Your task to perform on an android device: Do I have any events today? Image 0: 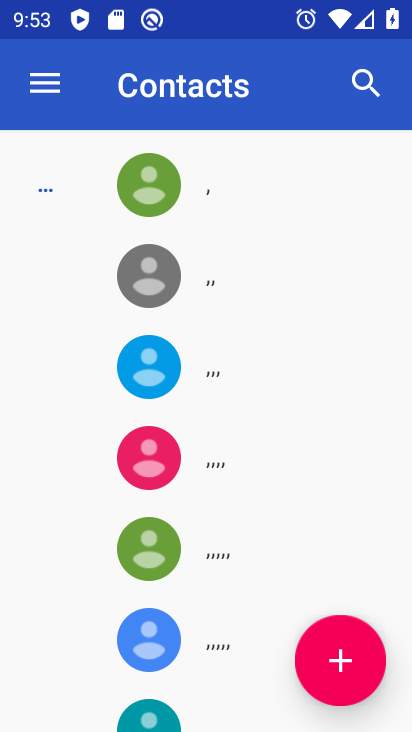
Step 0: press home button
Your task to perform on an android device: Do I have any events today? Image 1: 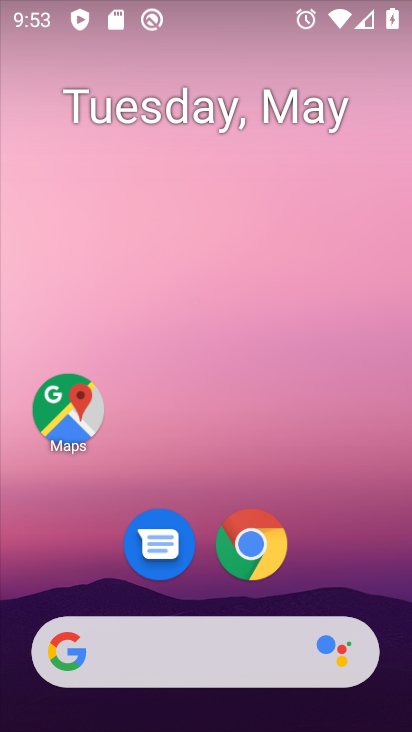
Step 1: drag from (378, 571) to (361, 245)
Your task to perform on an android device: Do I have any events today? Image 2: 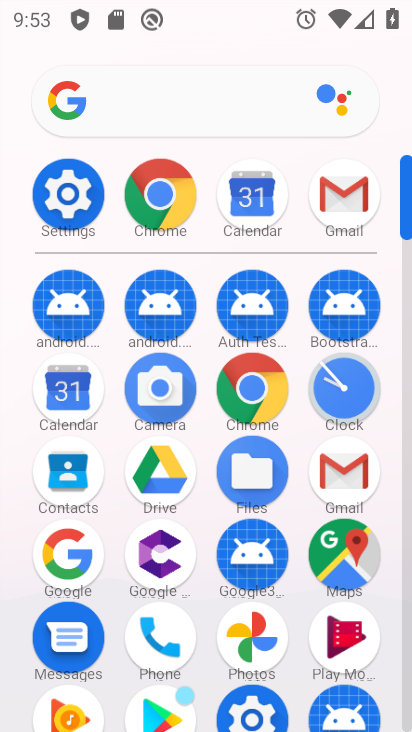
Step 2: click (231, 396)
Your task to perform on an android device: Do I have any events today? Image 3: 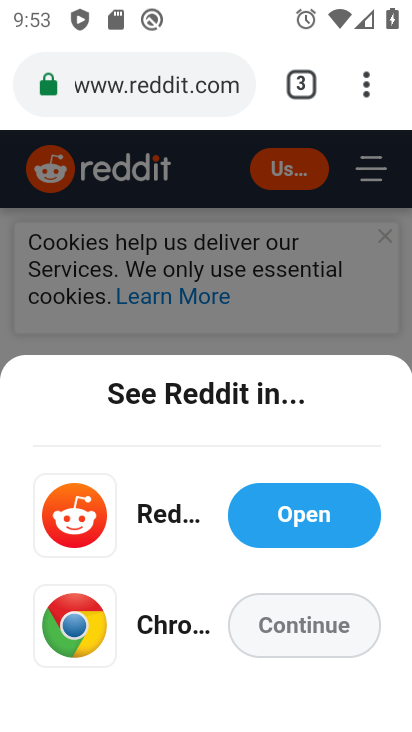
Step 3: click (225, 92)
Your task to perform on an android device: Do I have any events today? Image 4: 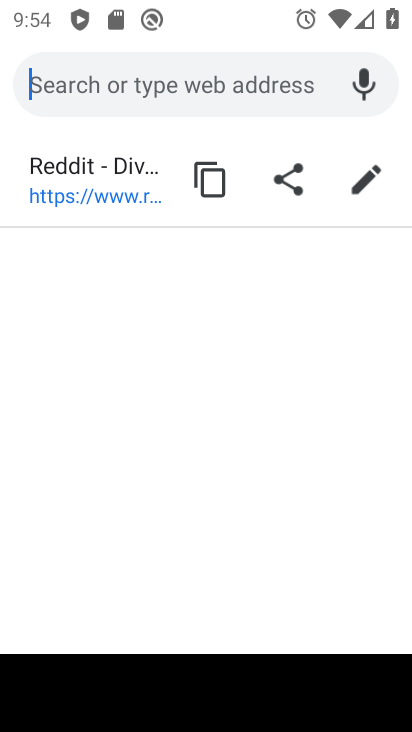
Step 4: type "do i have any events today"
Your task to perform on an android device: Do I have any events today? Image 5: 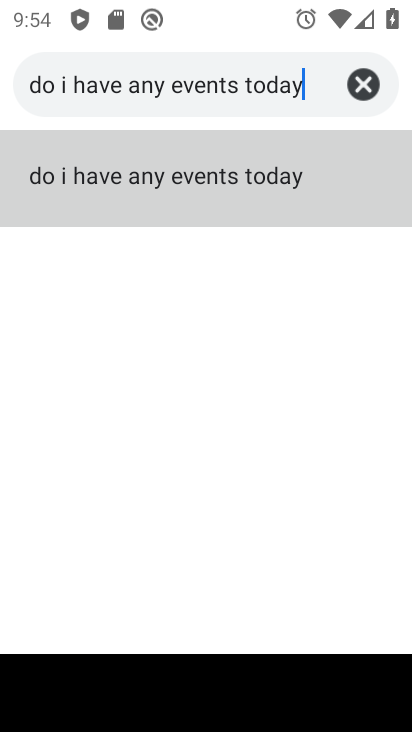
Step 5: click (205, 195)
Your task to perform on an android device: Do I have any events today? Image 6: 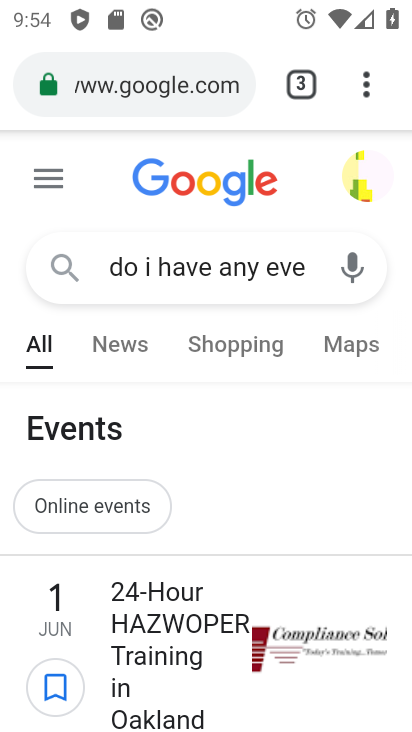
Step 6: task complete